Your task to perform on an android device: Open calendar and show me the first week of next month Image 0: 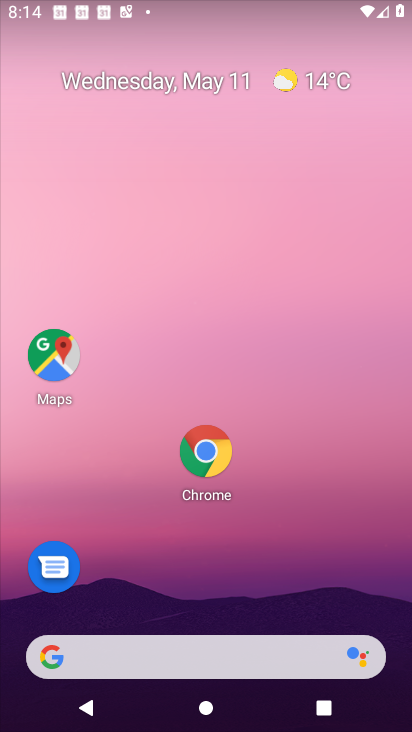
Step 0: press home button
Your task to perform on an android device: Open calendar and show me the first week of next month Image 1: 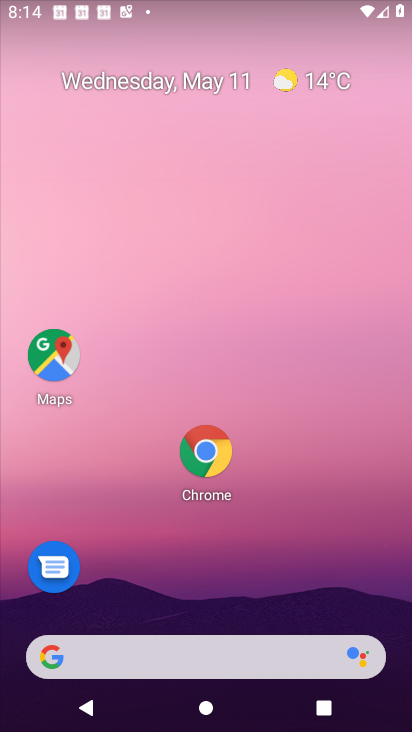
Step 1: drag from (152, 659) to (271, 224)
Your task to perform on an android device: Open calendar and show me the first week of next month Image 2: 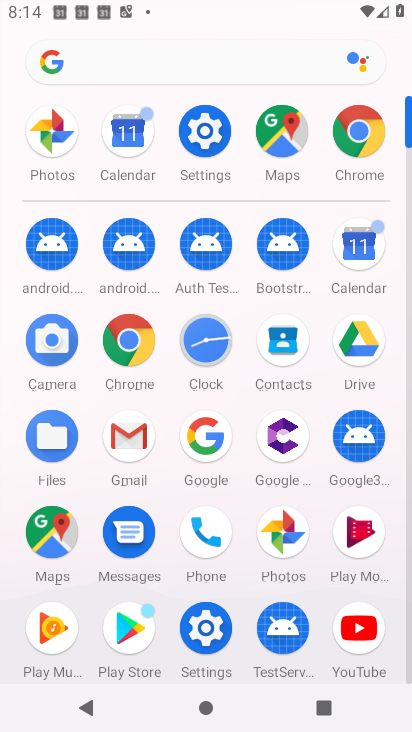
Step 2: click (359, 247)
Your task to perform on an android device: Open calendar and show me the first week of next month Image 3: 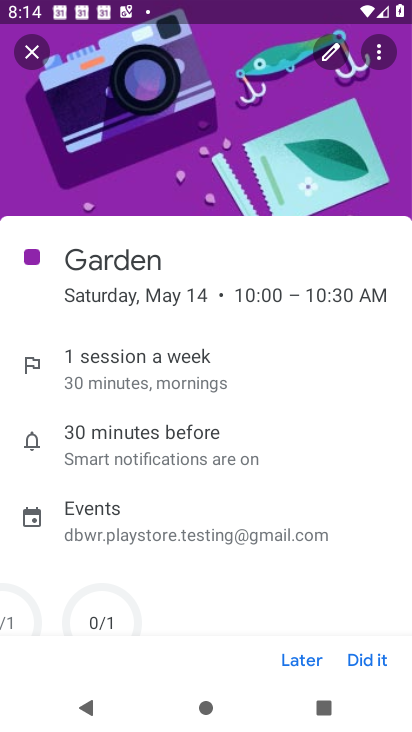
Step 3: click (35, 52)
Your task to perform on an android device: Open calendar and show me the first week of next month Image 4: 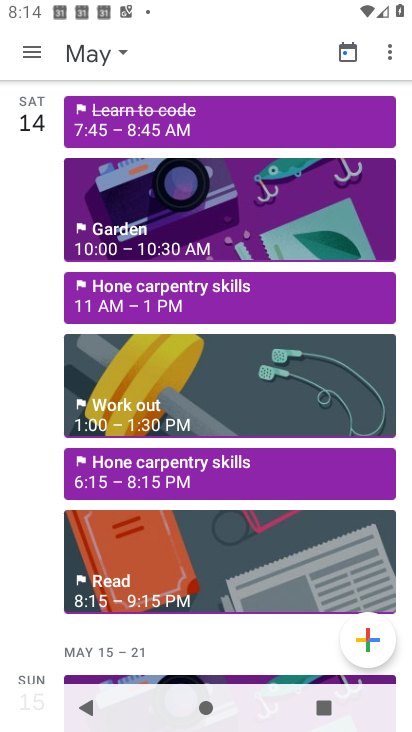
Step 4: click (100, 55)
Your task to perform on an android device: Open calendar and show me the first week of next month Image 5: 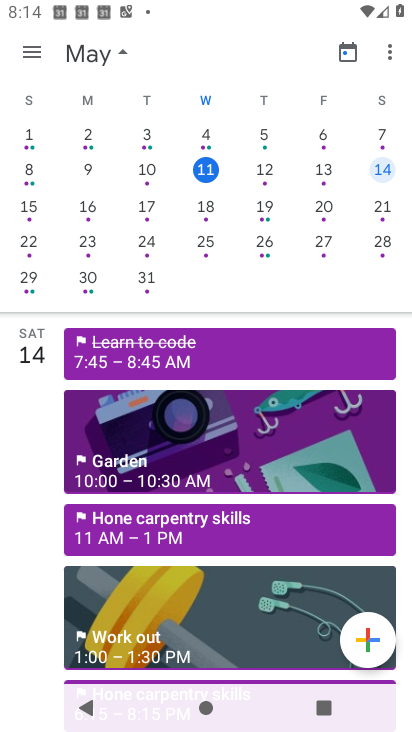
Step 5: drag from (389, 219) to (20, 199)
Your task to perform on an android device: Open calendar and show me the first week of next month Image 6: 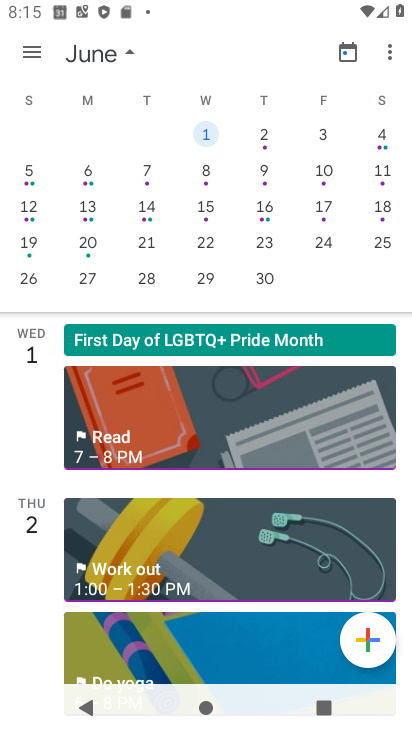
Step 6: click (210, 133)
Your task to perform on an android device: Open calendar and show me the first week of next month Image 7: 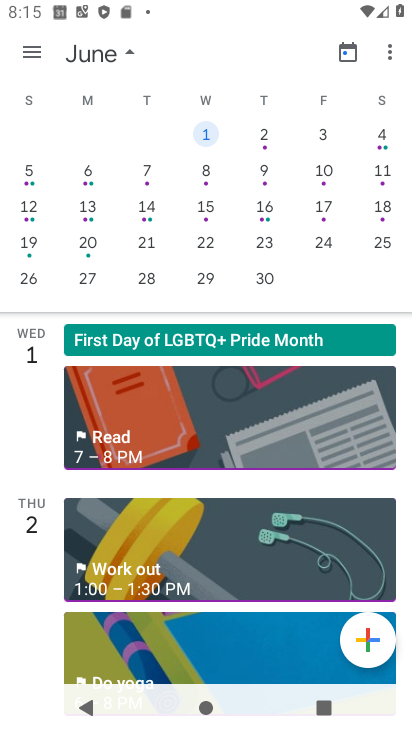
Step 7: click (34, 53)
Your task to perform on an android device: Open calendar and show me the first week of next month Image 8: 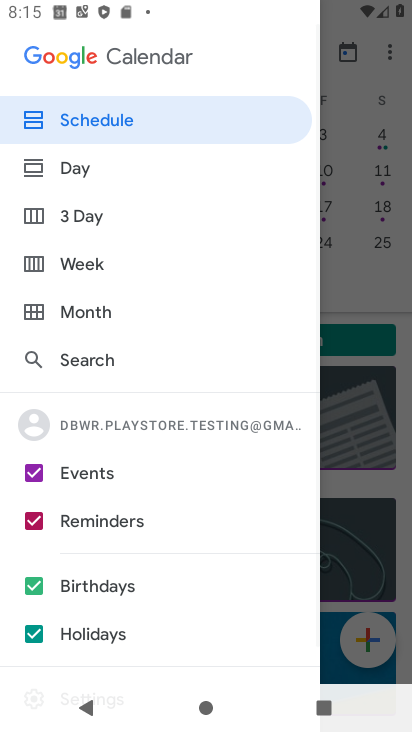
Step 8: click (83, 265)
Your task to perform on an android device: Open calendar and show me the first week of next month Image 9: 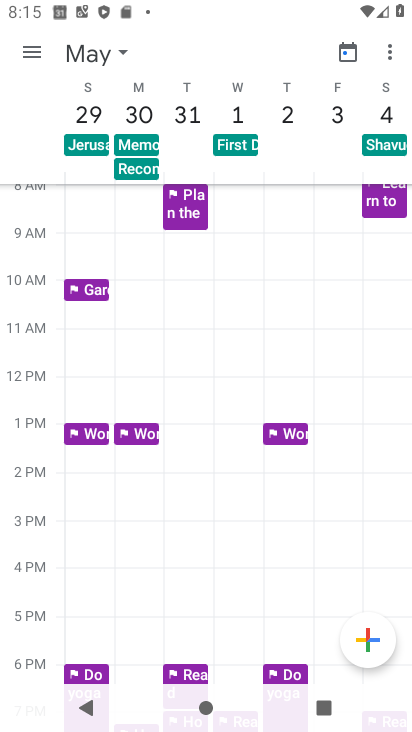
Step 9: task complete